Your task to perform on an android device: see sites visited before in the chrome app Image 0: 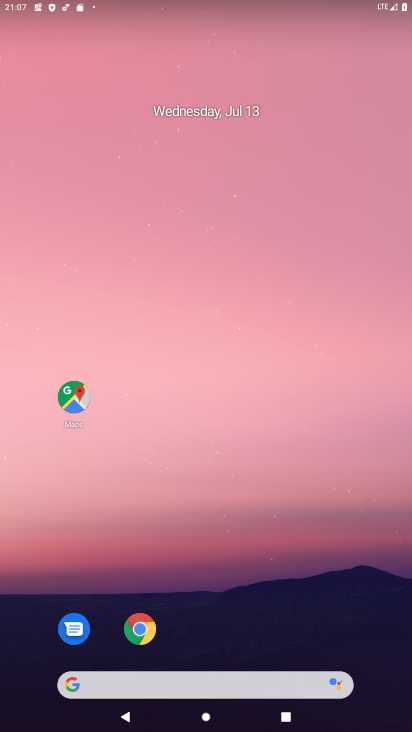
Step 0: drag from (244, 612) to (246, 22)
Your task to perform on an android device: see sites visited before in the chrome app Image 1: 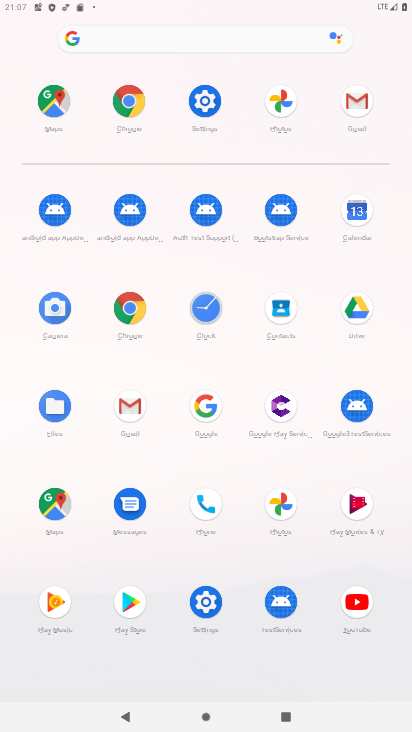
Step 1: click (117, 307)
Your task to perform on an android device: see sites visited before in the chrome app Image 2: 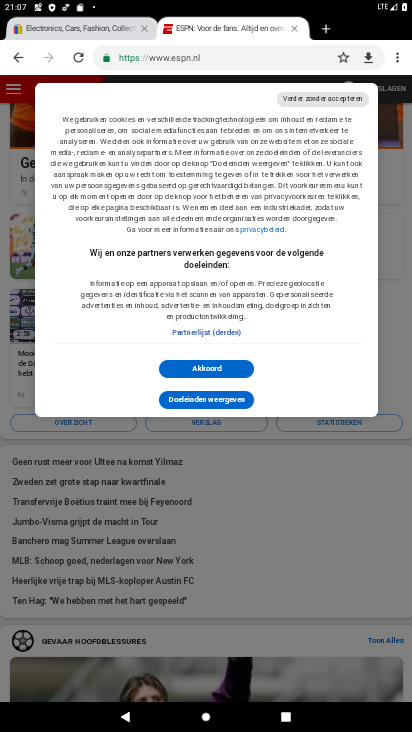
Step 2: drag from (400, 52) to (282, 164)
Your task to perform on an android device: see sites visited before in the chrome app Image 3: 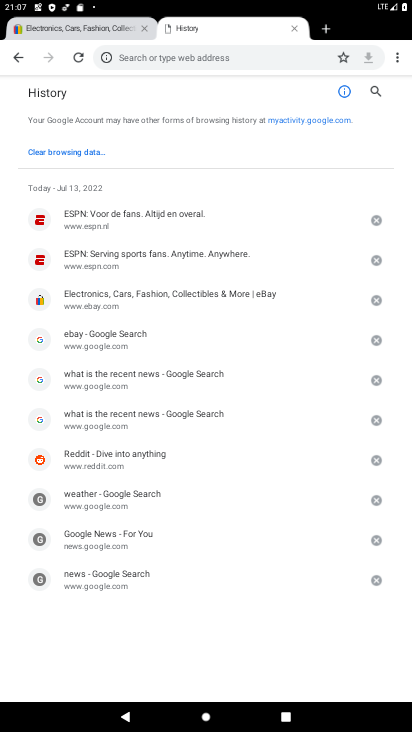
Step 3: click (112, 214)
Your task to perform on an android device: see sites visited before in the chrome app Image 4: 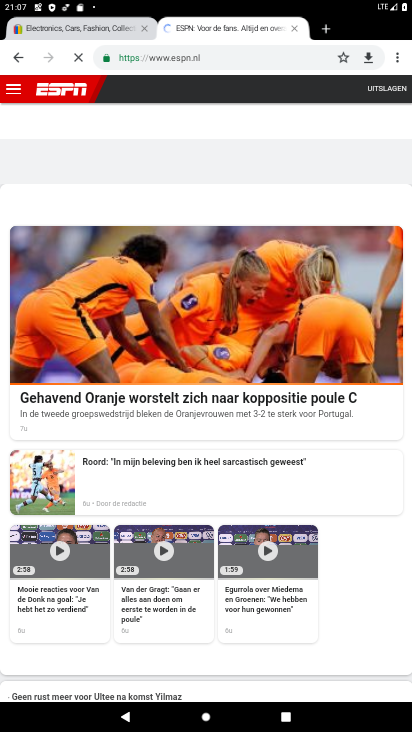
Step 4: task complete